Your task to perform on an android device: empty trash in the gmail app Image 0: 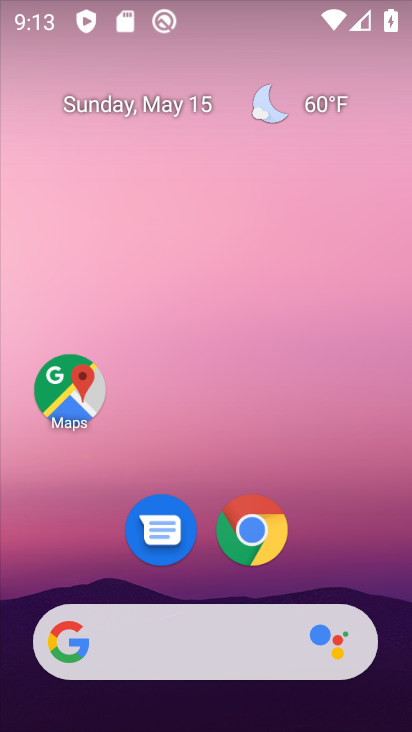
Step 0: drag from (388, 564) to (388, 90)
Your task to perform on an android device: empty trash in the gmail app Image 1: 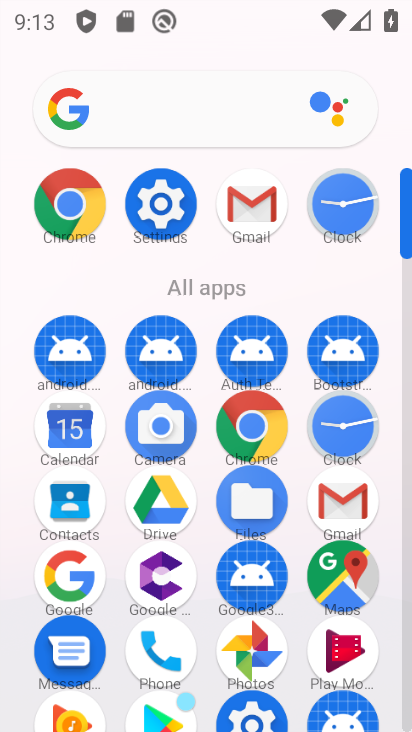
Step 1: click (335, 500)
Your task to perform on an android device: empty trash in the gmail app Image 2: 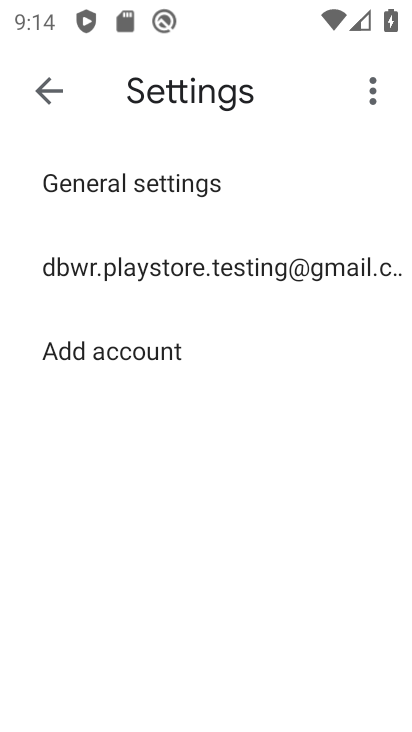
Step 2: click (48, 88)
Your task to perform on an android device: empty trash in the gmail app Image 3: 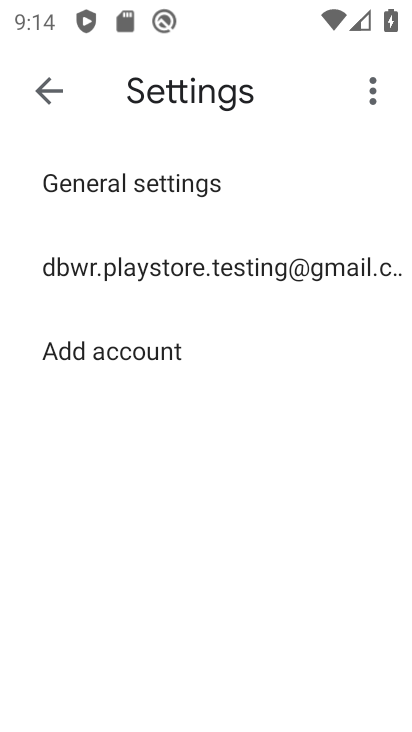
Step 3: click (47, 94)
Your task to perform on an android device: empty trash in the gmail app Image 4: 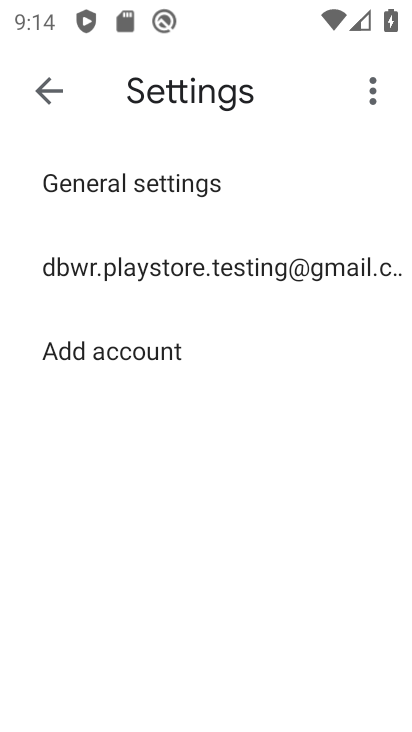
Step 4: press back button
Your task to perform on an android device: empty trash in the gmail app Image 5: 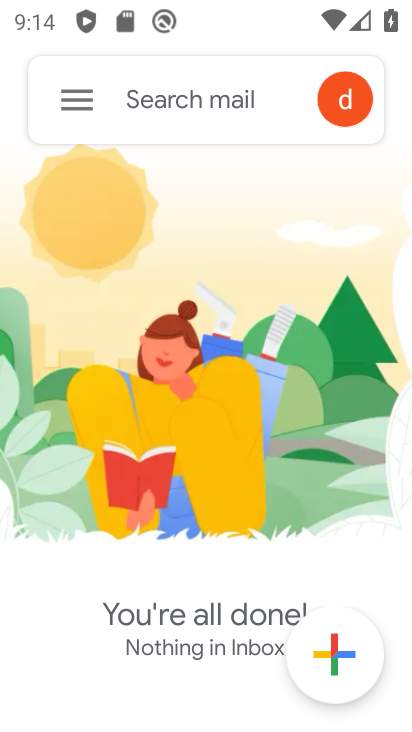
Step 5: click (73, 85)
Your task to perform on an android device: empty trash in the gmail app Image 6: 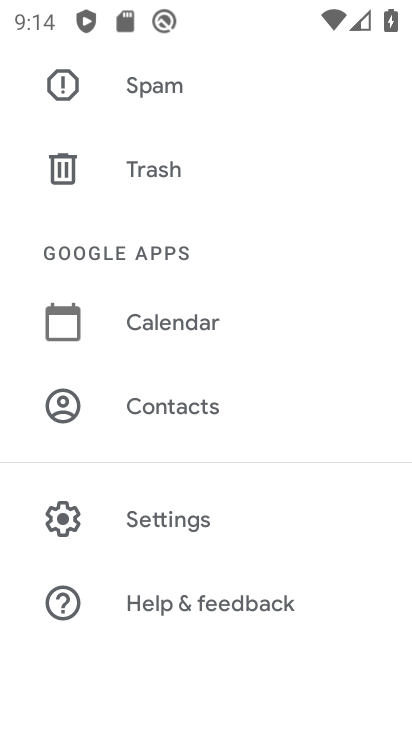
Step 6: drag from (334, 275) to (336, 458)
Your task to perform on an android device: empty trash in the gmail app Image 7: 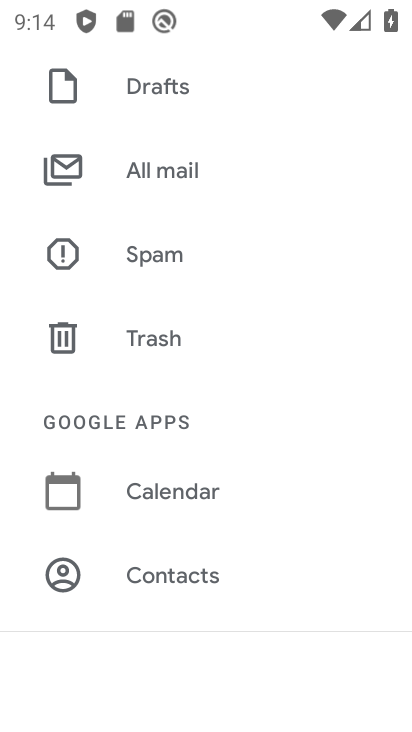
Step 7: click (155, 340)
Your task to perform on an android device: empty trash in the gmail app Image 8: 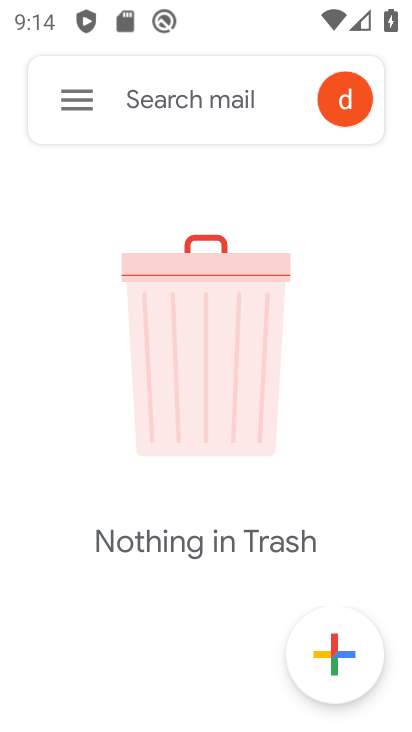
Step 8: task complete